Your task to perform on an android device: What's the weather going to be tomorrow? Image 0: 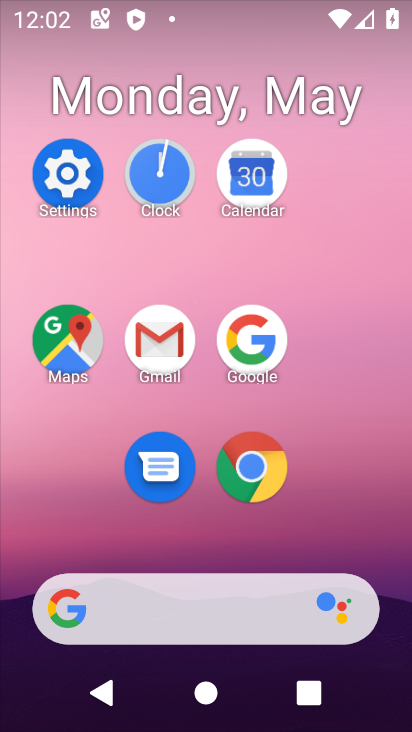
Step 0: click (240, 364)
Your task to perform on an android device: What's the weather going to be tomorrow? Image 1: 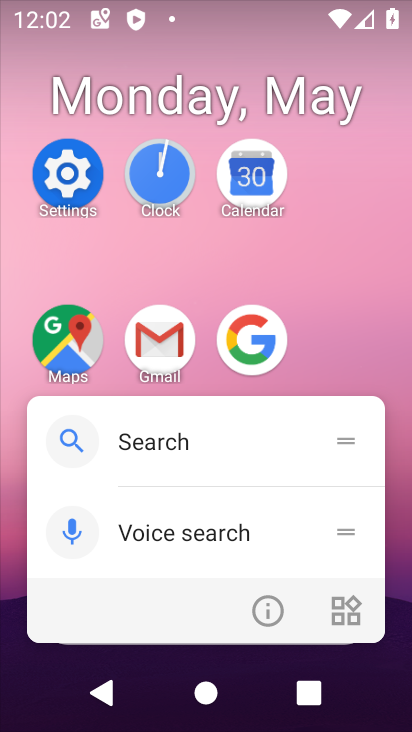
Step 1: click (243, 358)
Your task to perform on an android device: What's the weather going to be tomorrow? Image 2: 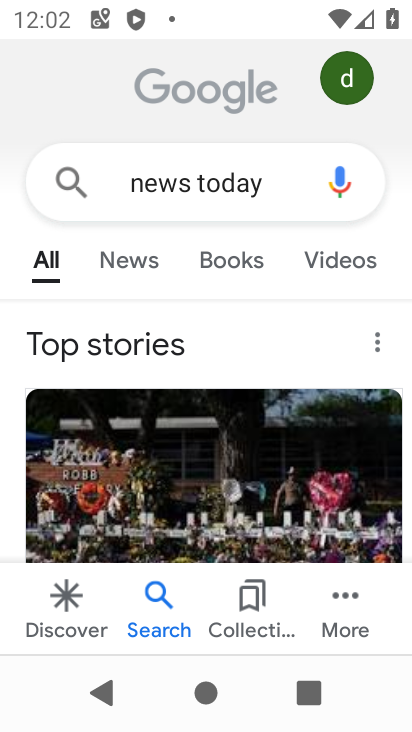
Step 2: click (288, 181)
Your task to perform on an android device: What's the weather going to be tomorrow? Image 3: 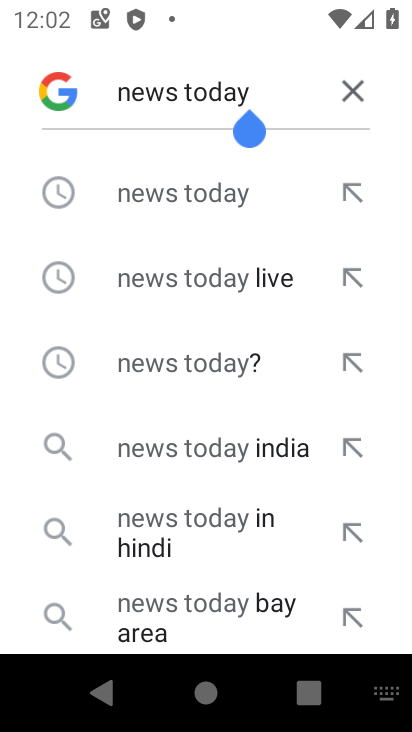
Step 3: click (368, 95)
Your task to perform on an android device: What's the weather going to be tomorrow? Image 4: 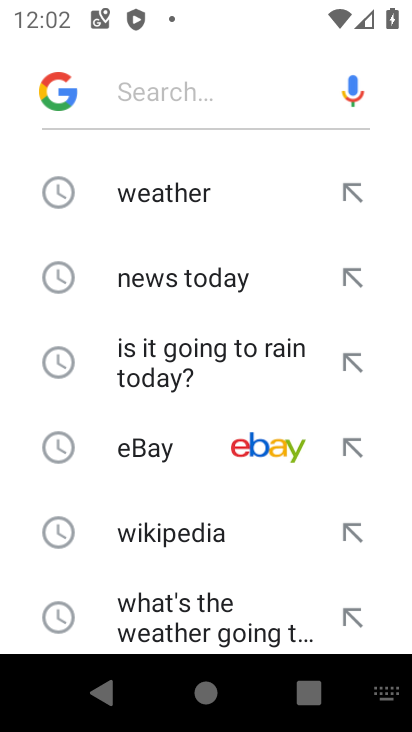
Step 4: click (174, 195)
Your task to perform on an android device: What's the weather going to be tomorrow? Image 5: 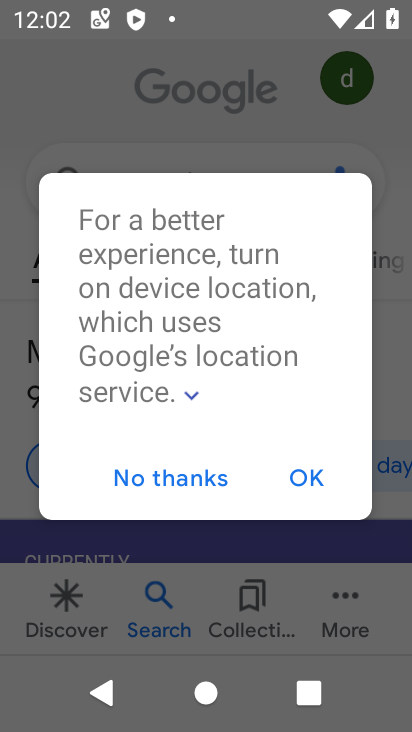
Step 5: click (280, 474)
Your task to perform on an android device: What's the weather going to be tomorrow? Image 6: 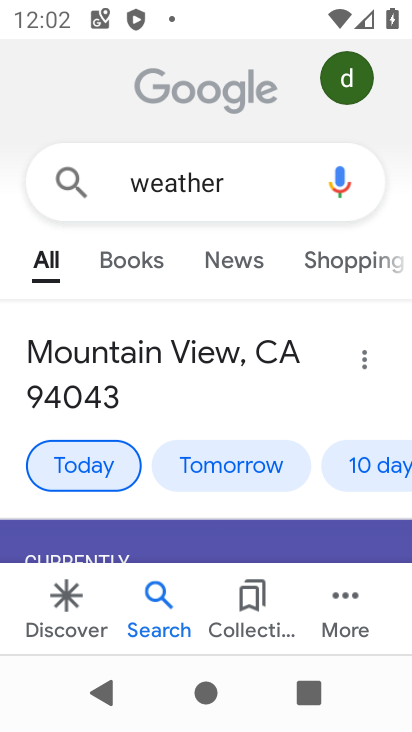
Step 6: task complete